Your task to perform on an android device: turn on the 12-hour format for clock Image 0: 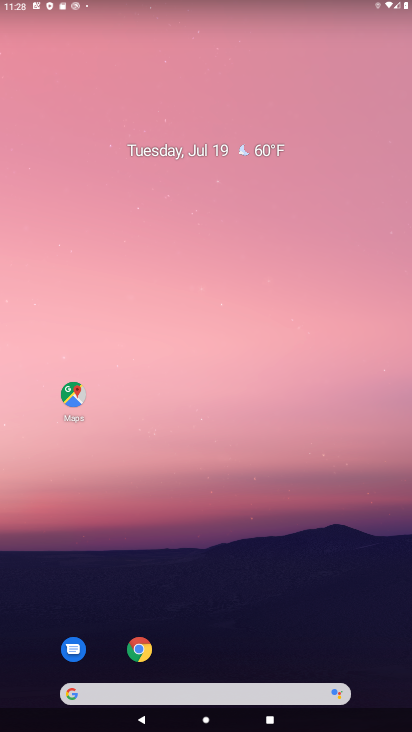
Step 0: drag from (206, 684) to (172, 165)
Your task to perform on an android device: turn on the 12-hour format for clock Image 1: 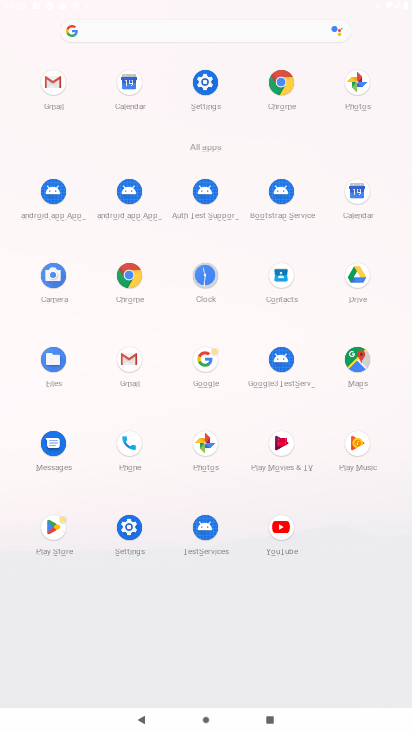
Step 1: click (136, 526)
Your task to perform on an android device: turn on the 12-hour format for clock Image 2: 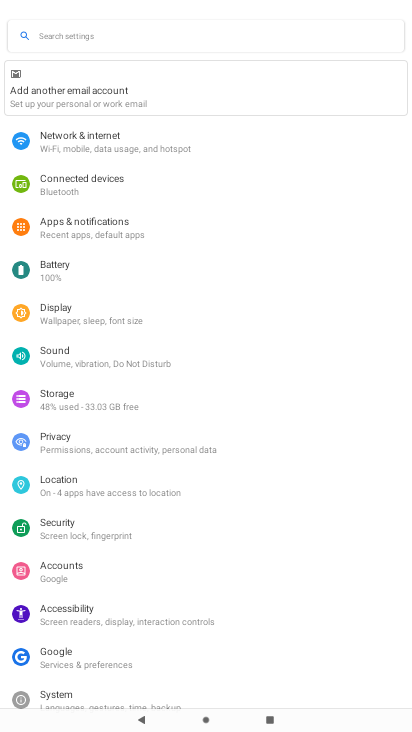
Step 2: click (71, 694)
Your task to perform on an android device: turn on the 12-hour format for clock Image 3: 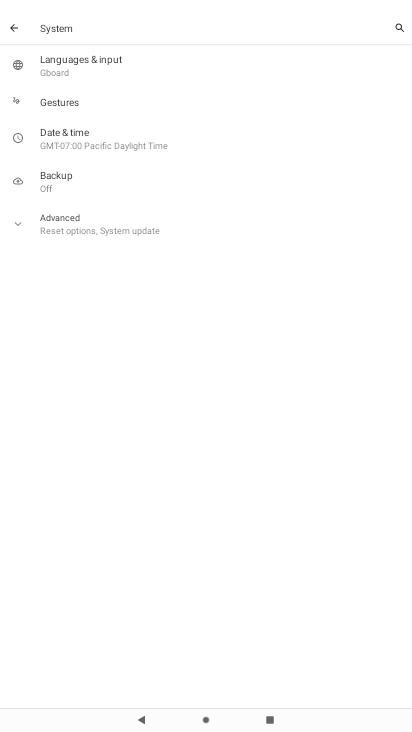
Step 3: click (57, 140)
Your task to perform on an android device: turn on the 12-hour format for clock Image 4: 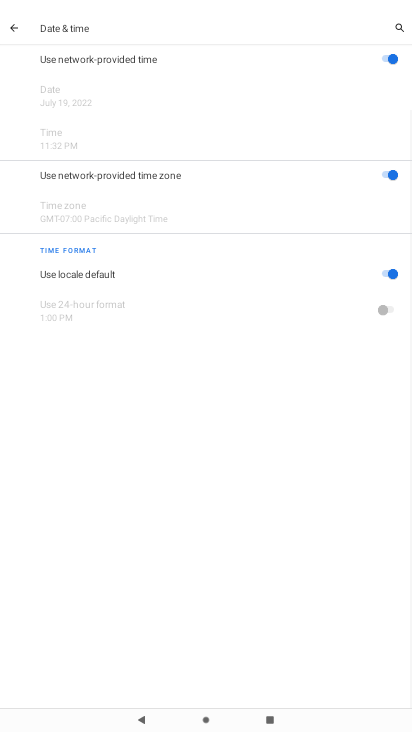
Step 4: click (386, 268)
Your task to perform on an android device: turn on the 12-hour format for clock Image 5: 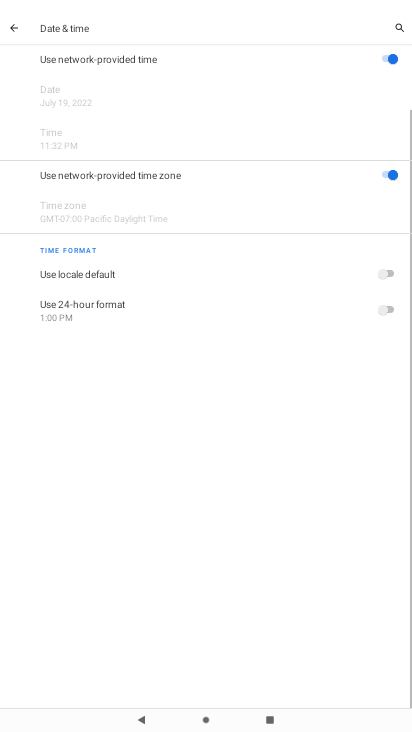
Step 5: click (385, 306)
Your task to perform on an android device: turn on the 12-hour format for clock Image 6: 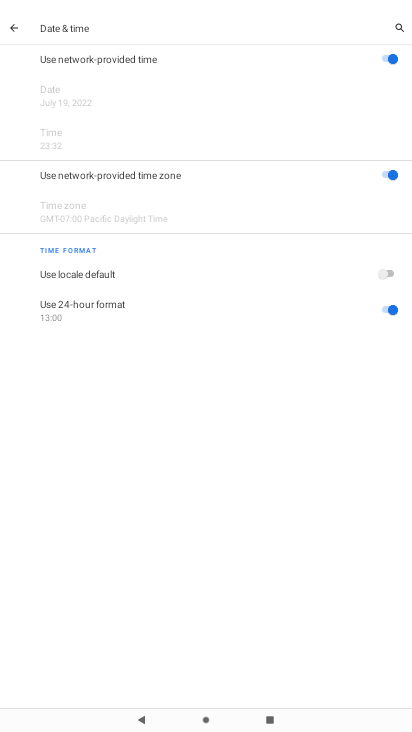
Step 6: task complete